Your task to perform on an android device: Open maps Image 0: 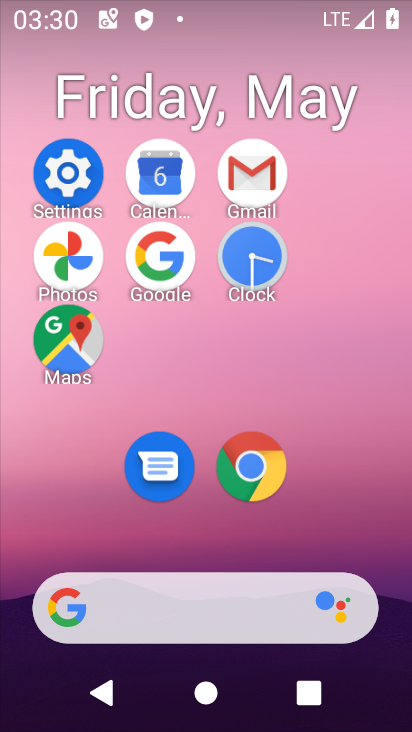
Step 0: click (65, 331)
Your task to perform on an android device: Open maps Image 1: 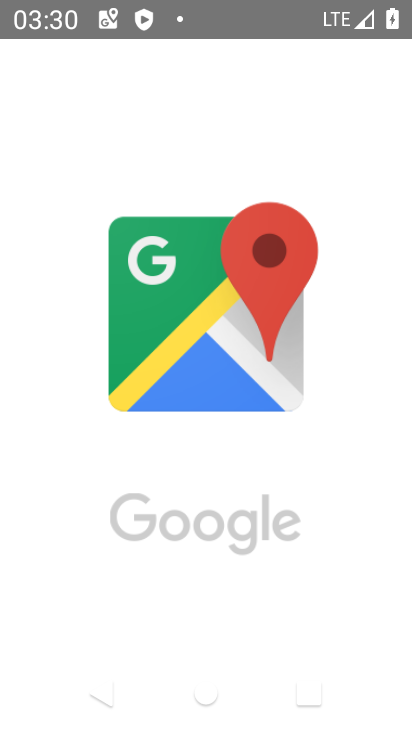
Step 1: task complete